Your task to perform on an android device: See recent photos Image 0: 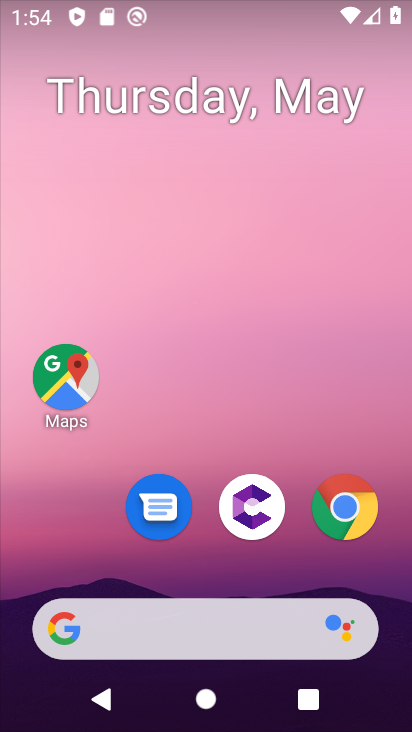
Step 0: drag from (291, 425) to (287, 60)
Your task to perform on an android device: See recent photos Image 1: 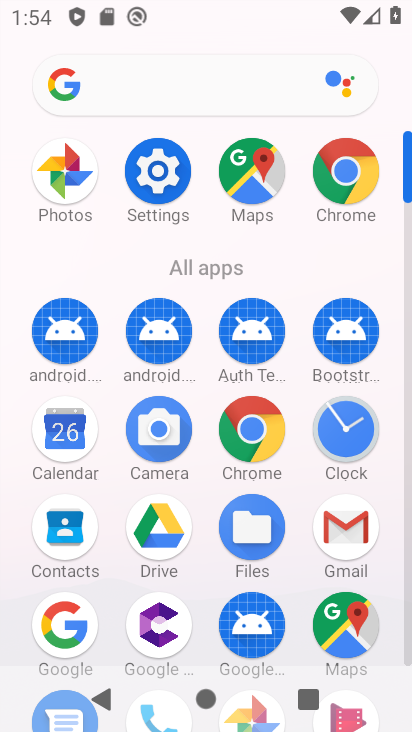
Step 1: click (56, 191)
Your task to perform on an android device: See recent photos Image 2: 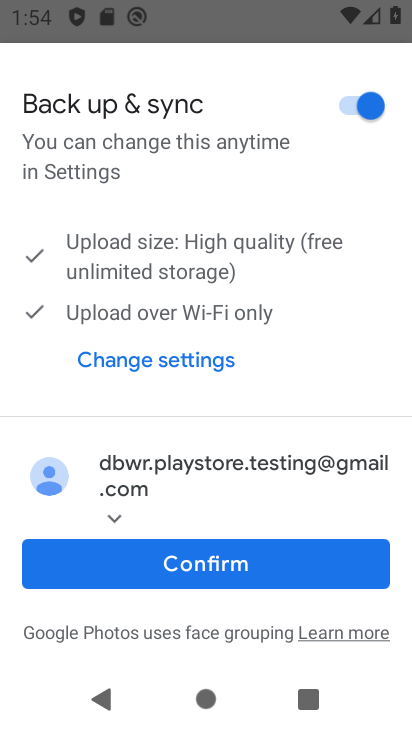
Step 2: click (155, 570)
Your task to perform on an android device: See recent photos Image 3: 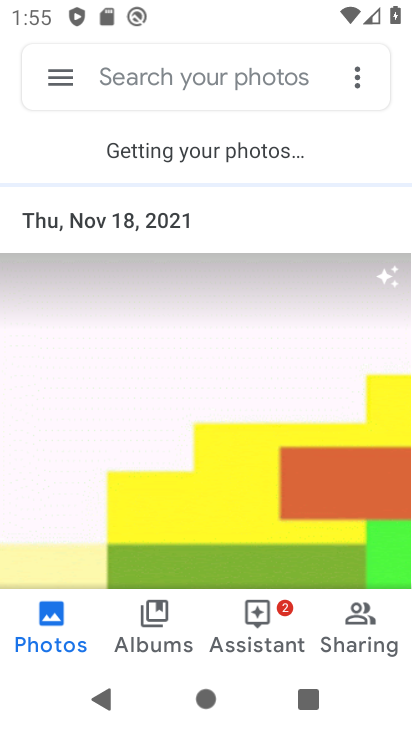
Step 3: task complete